Your task to perform on an android device: all mails in gmail Image 0: 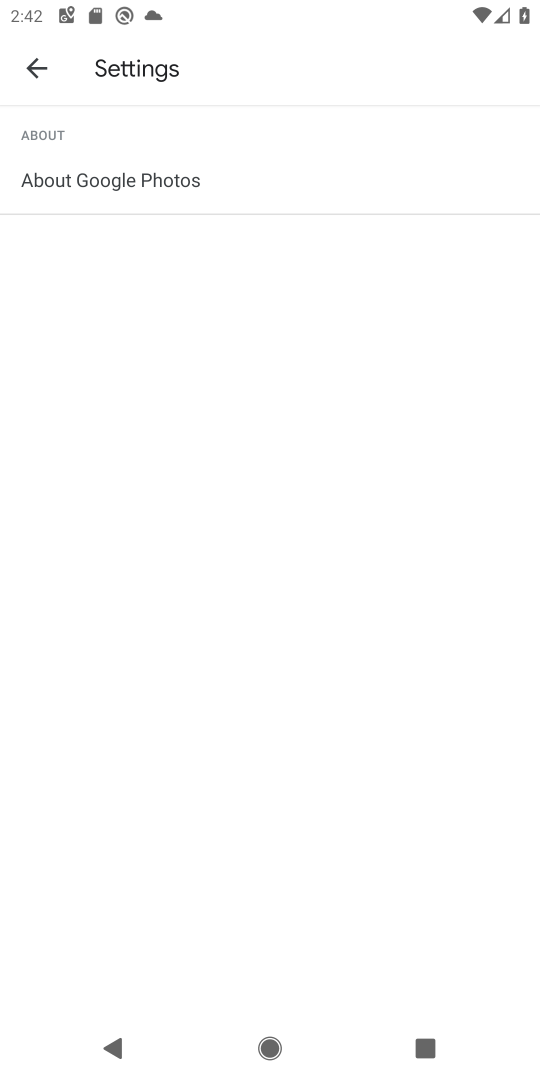
Step 0: press home button
Your task to perform on an android device: all mails in gmail Image 1: 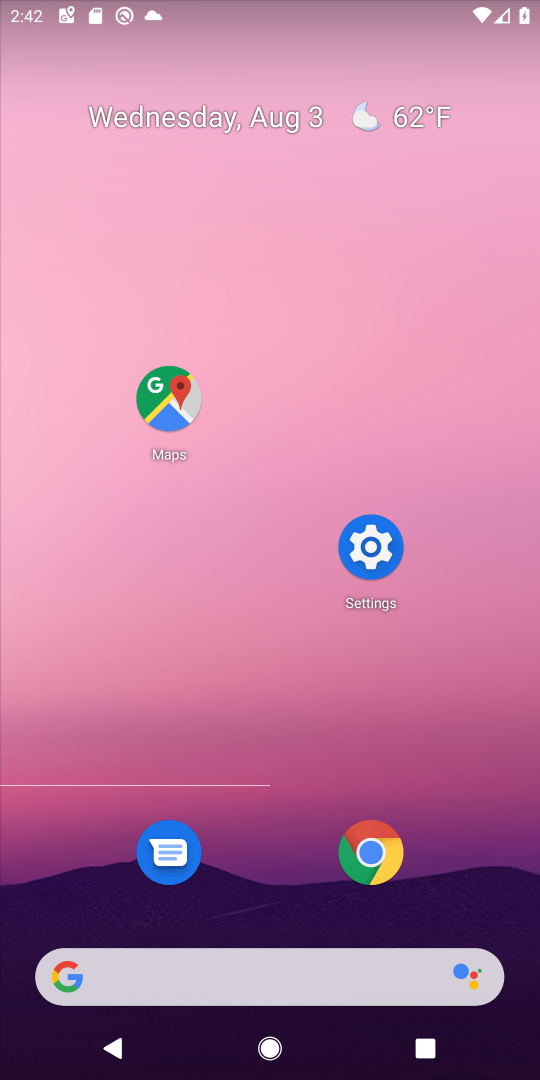
Step 1: drag from (295, 960) to (357, 280)
Your task to perform on an android device: all mails in gmail Image 2: 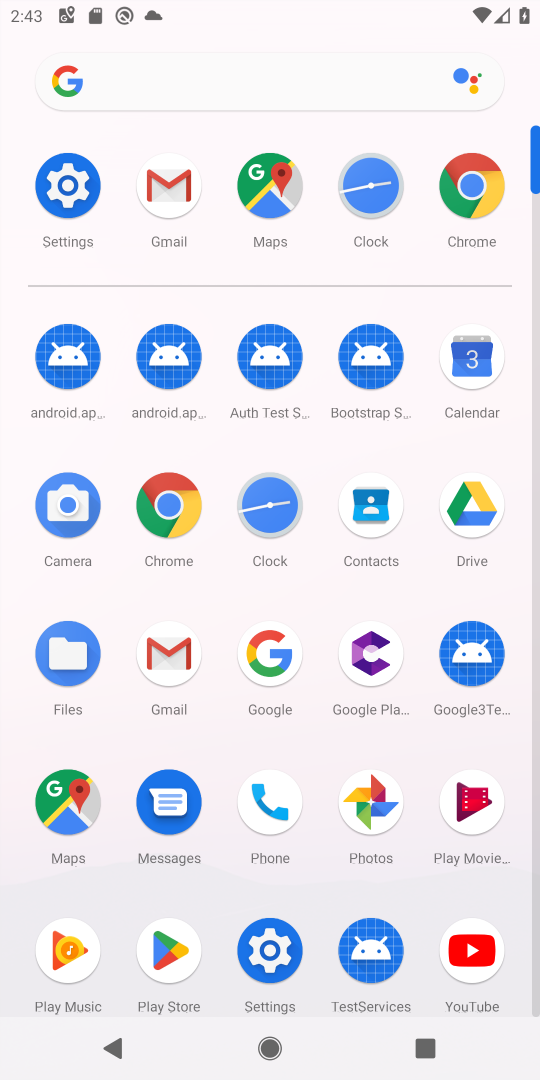
Step 2: click (165, 194)
Your task to perform on an android device: all mails in gmail Image 3: 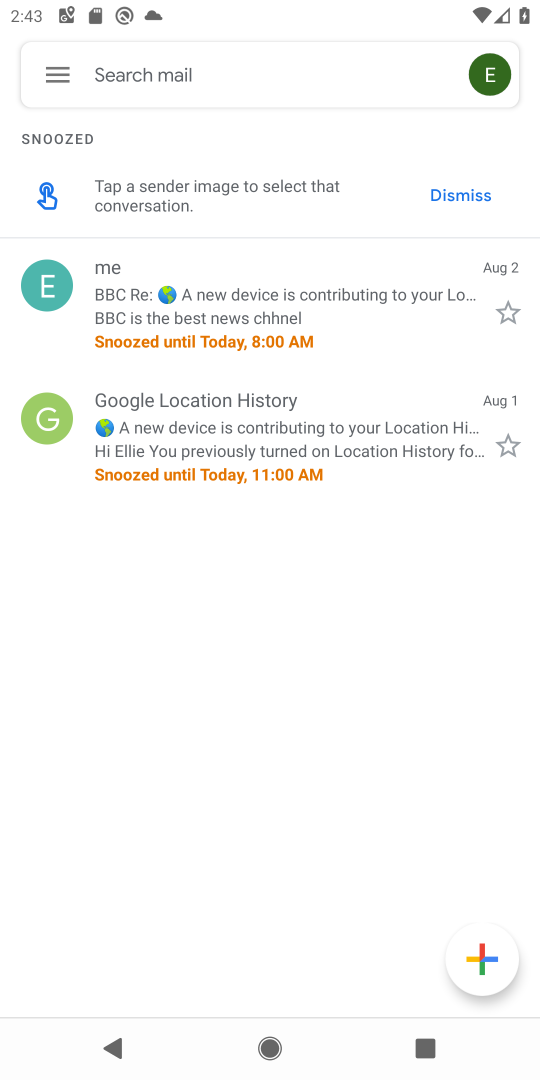
Step 3: click (63, 72)
Your task to perform on an android device: all mails in gmail Image 4: 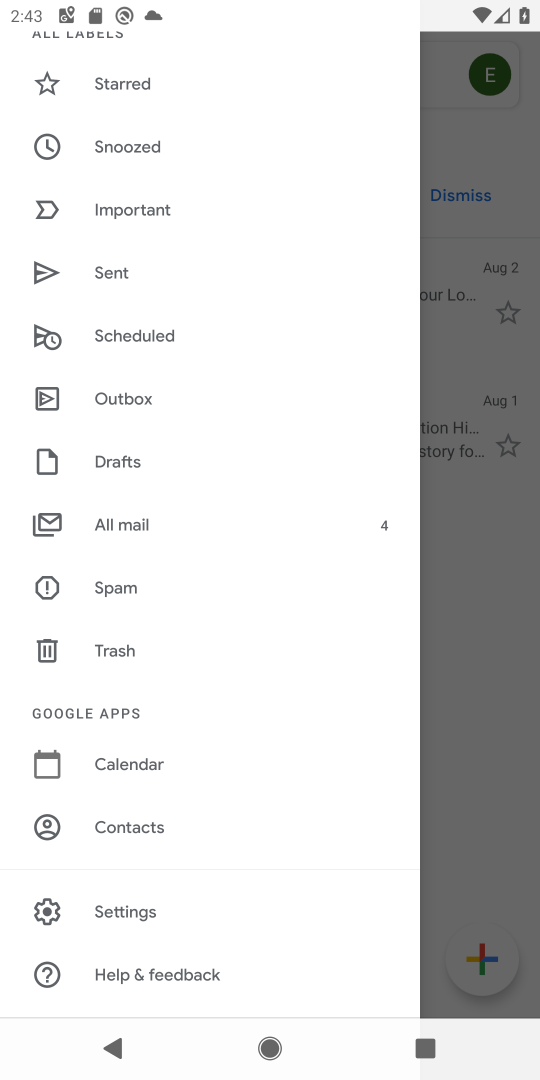
Step 4: click (136, 521)
Your task to perform on an android device: all mails in gmail Image 5: 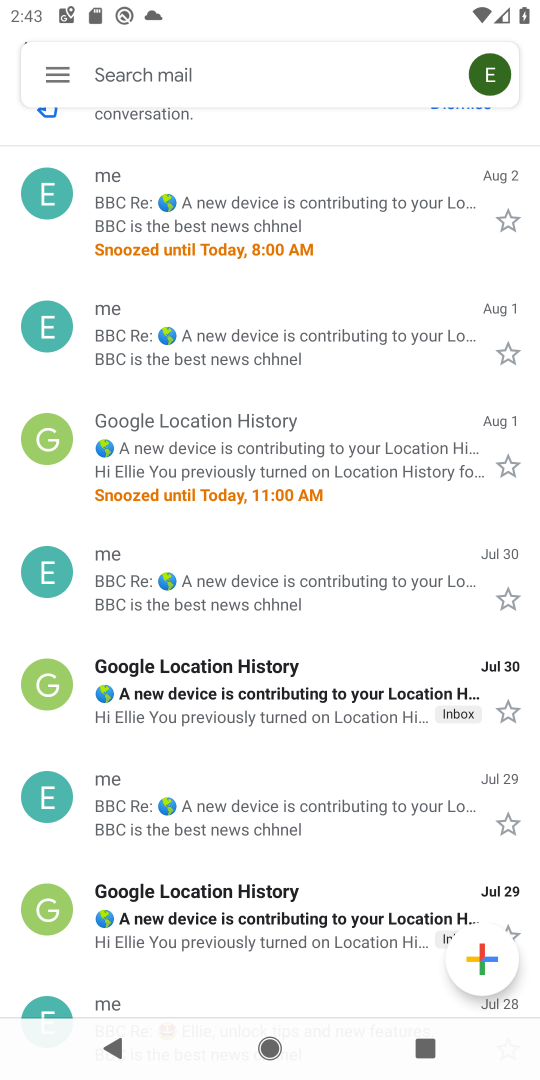
Step 5: task complete